Your task to perform on an android device: turn off notifications settings in the gmail app Image 0: 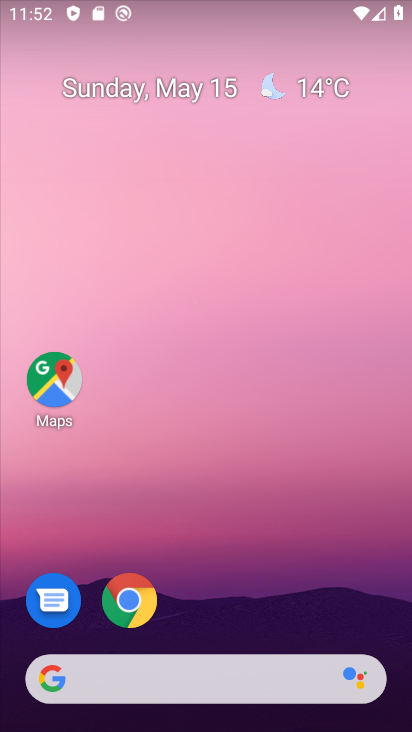
Step 0: drag from (272, 565) to (263, 19)
Your task to perform on an android device: turn off notifications settings in the gmail app Image 1: 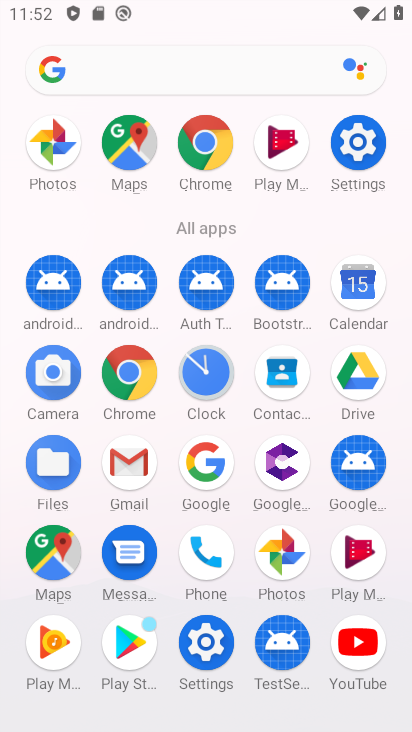
Step 1: click (127, 459)
Your task to perform on an android device: turn off notifications settings in the gmail app Image 2: 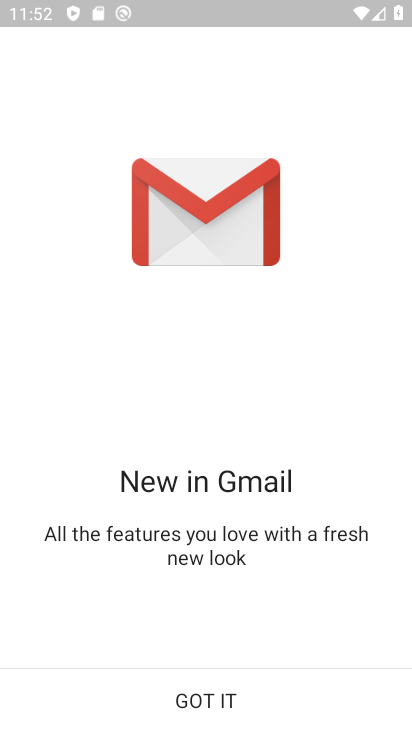
Step 2: click (200, 693)
Your task to perform on an android device: turn off notifications settings in the gmail app Image 3: 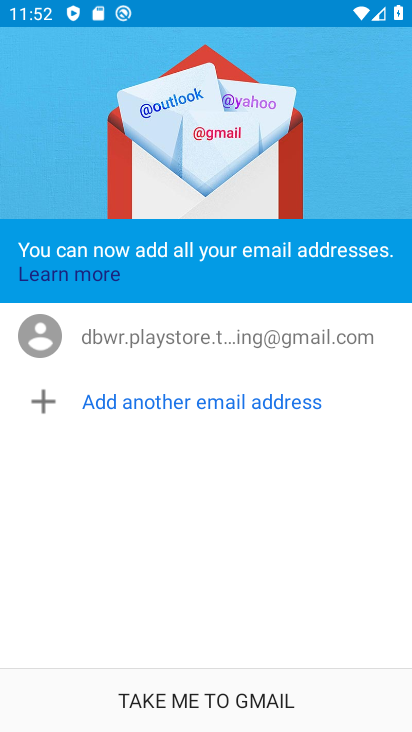
Step 3: click (195, 703)
Your task to perform on an android device: turn off notifications settings in the gmail app Image 4: 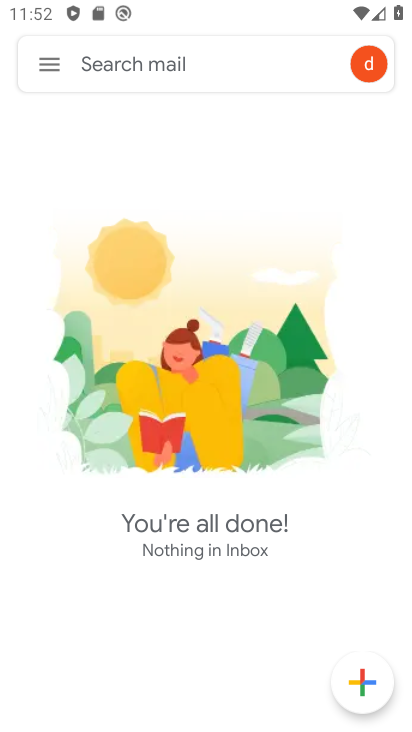
Step 4: click (61, 62)
Your task to perform on an android device: turn off notifications settings in the gmail app Image 5: 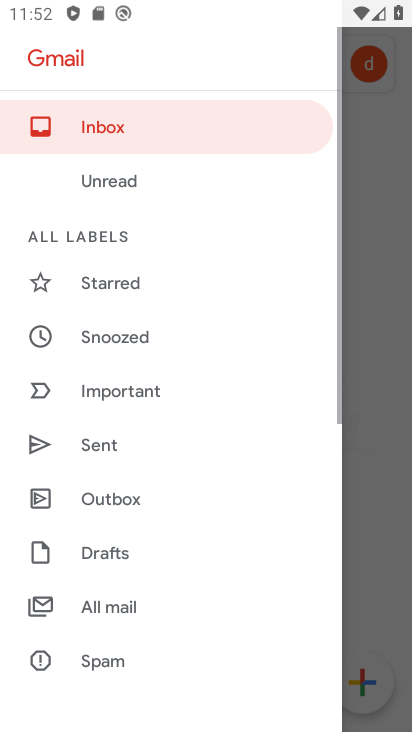
Step 5: drag from (147, 640) to (188, 233)
Your task to perform on an android device: turn off notifications settings in the gmail app Image 6: 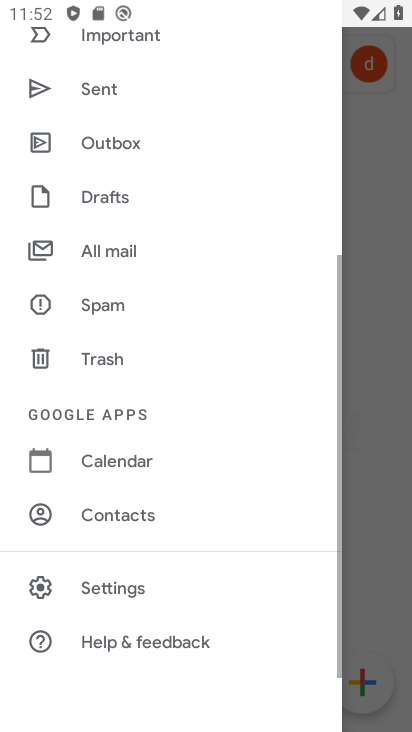
Step 6: click (144, 586)
Your task to perform on an android device: turn off notifications settings in the gmail app Image 7: 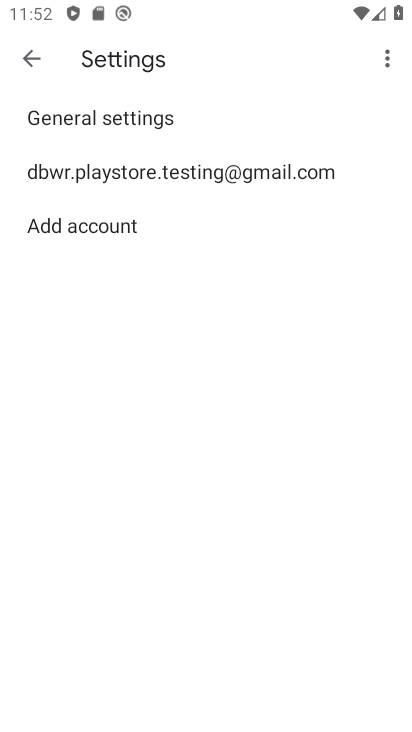
Step 7: click (180, 170)
Your task to perform on an android device: turn off notifications settings in the gmail app Image 8: 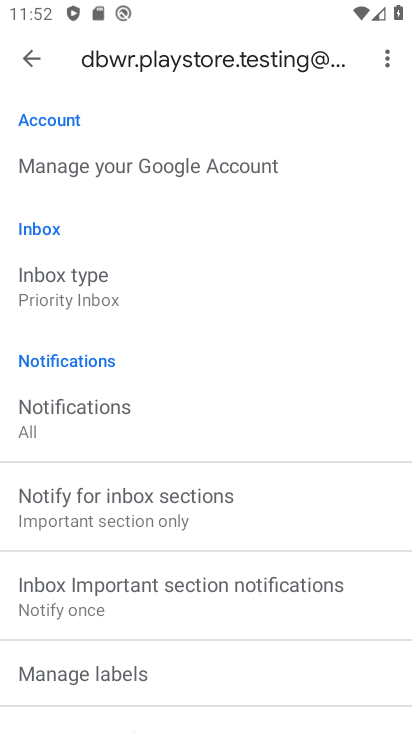
Step 8: drag from (231, 661) to (267, 352)
Your task to perform on an android device: turn off notifications settings in the gmail app Image 9: 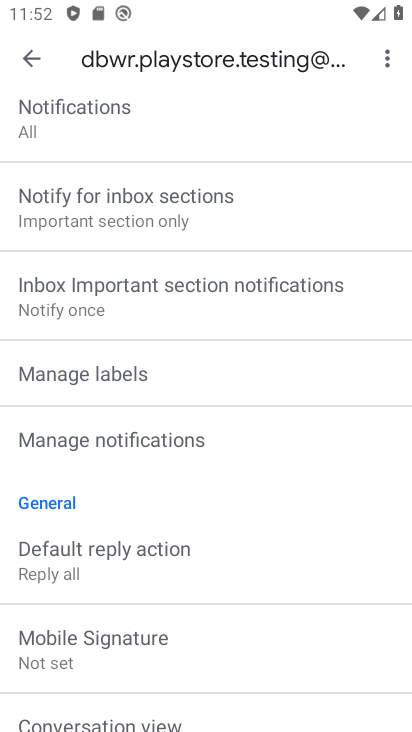
Step 9: click (121, 446)
Your task to perform on an android device: turn off notifications settings in the gmail app Image 10: 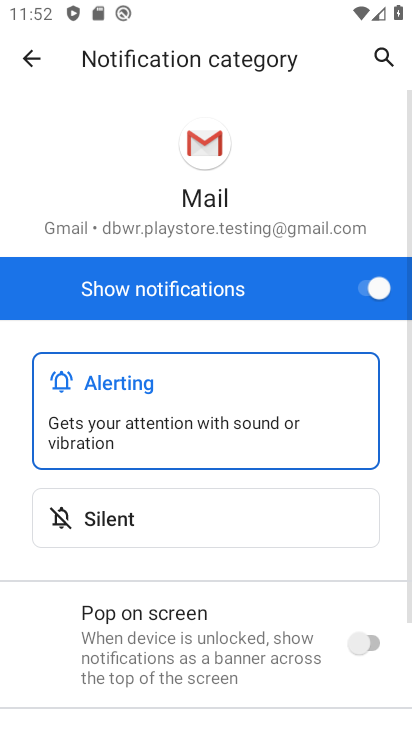
Step 10: click (373, 284)
Your task to perform on an android device: turn off notifications settings in the gmail app Image 11: 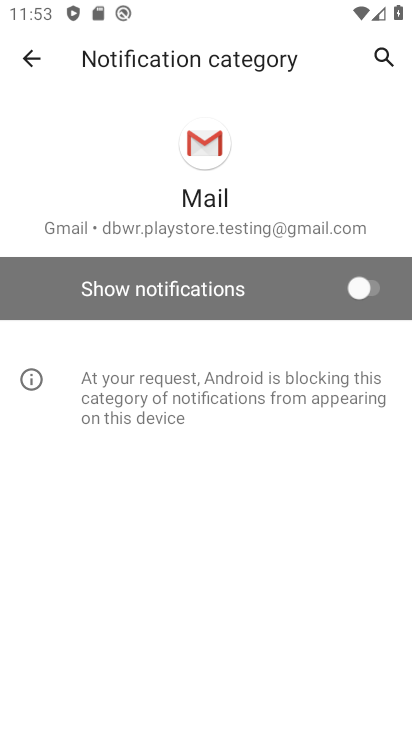
Step 11: task complete